Your task to perform on an android device: choose inbox layout in the gmail app Image 0: 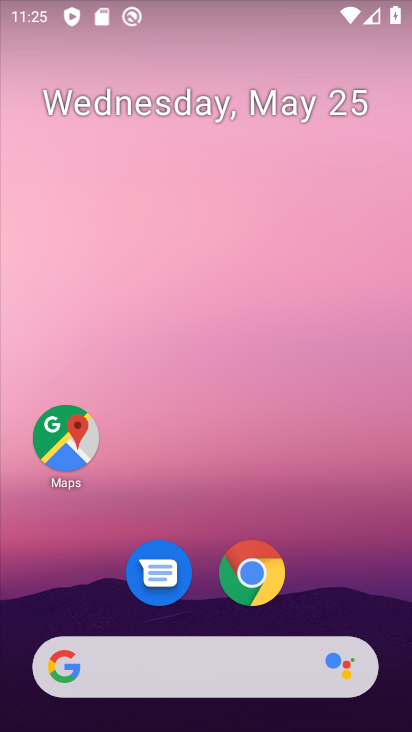
Step 0: drag from (247, 676) to (222, 163)
Your task to perform on an android device: choose inbox layout in the gmail app Image 1: 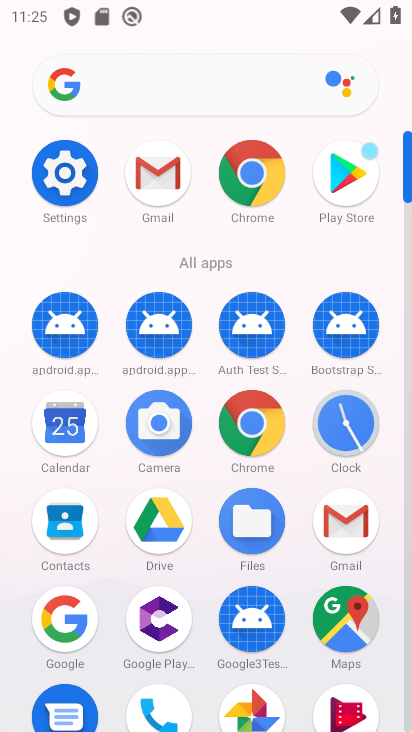
Step 1: click (175, 184)
Your task to perform on an android device: choose inbox layout in the gmail app Image 2: 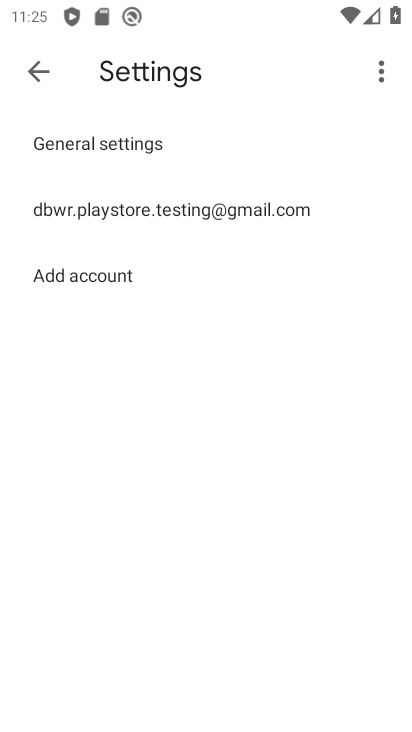
Step 2: click (40, 73)
Your task to perform on an android device: choose inbox layout in the gmail app Image 3: 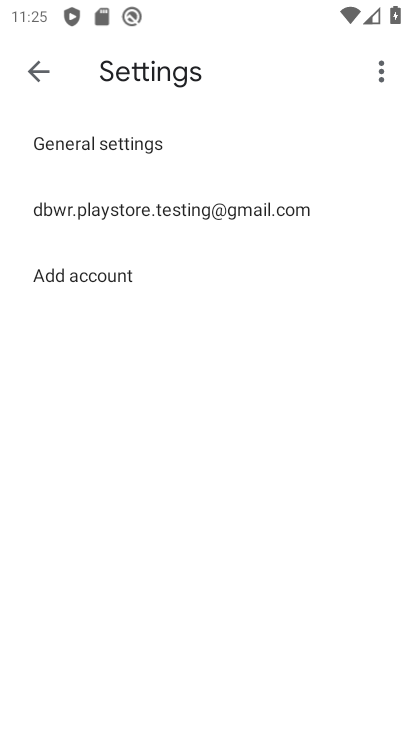
Step 3: click (40, 70)
Your task to perform on an android device: choose inbox layout in the gmail app Image 4: 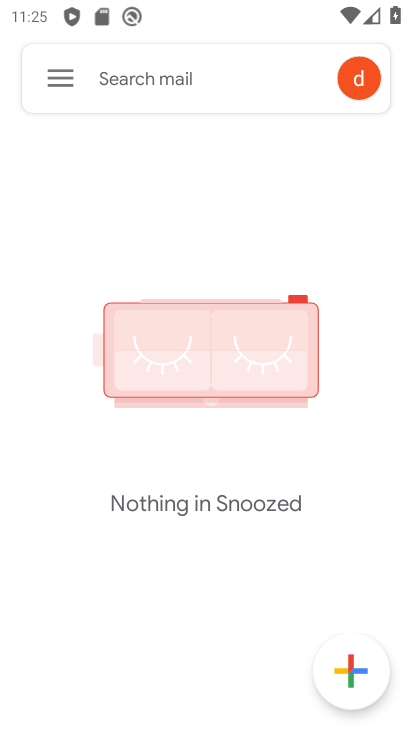
Step 4: click (40, 70)
Your task to perform on an android device: choose inbox layout in the gmail app Image 5: 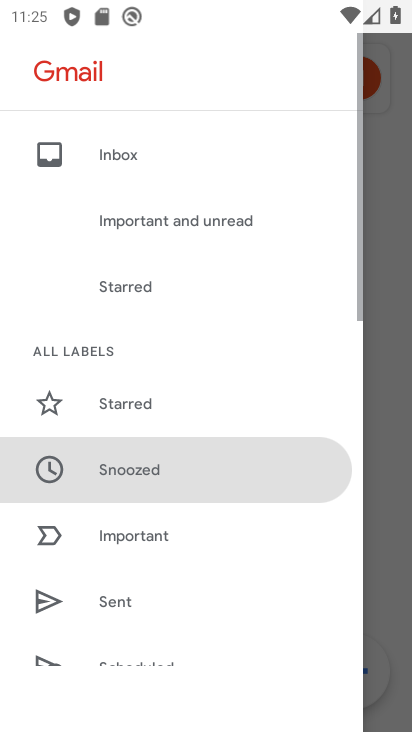
Step 5: drag from (81, 502) to (2, 502)
Your task to perform on an android device: choose inbox layout in the gmail app Image 6: 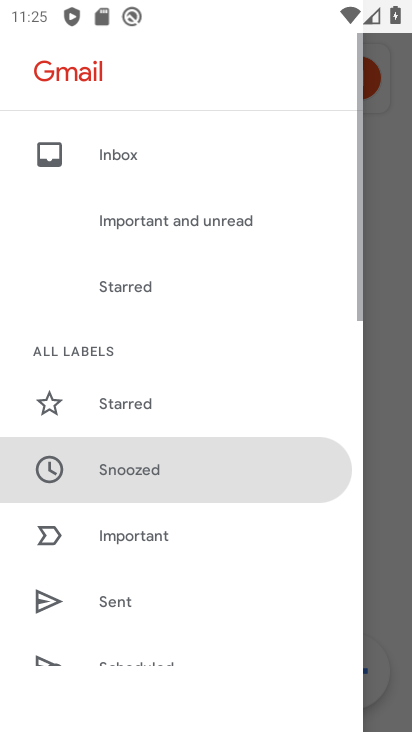
Step 6: drag from (92, 610) to (102, 34)
Your task to perform on an android device: choose inbox layout in the gmail app Image 7: 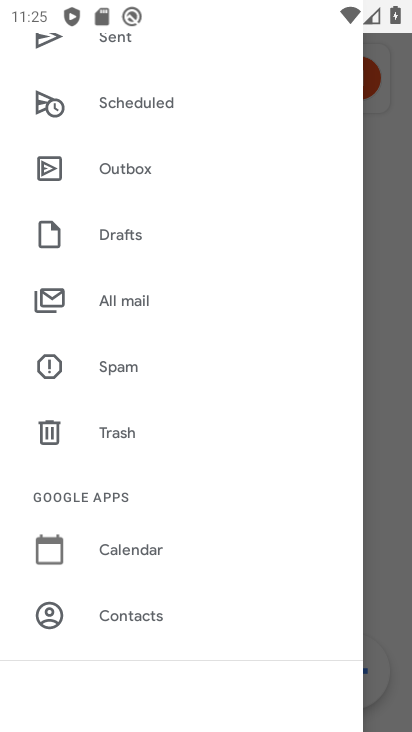
Step 7: drag from (123, 542) to (62, 22)
Your task to perform on an android device: choose inbox layout in the gmail app Image 8: 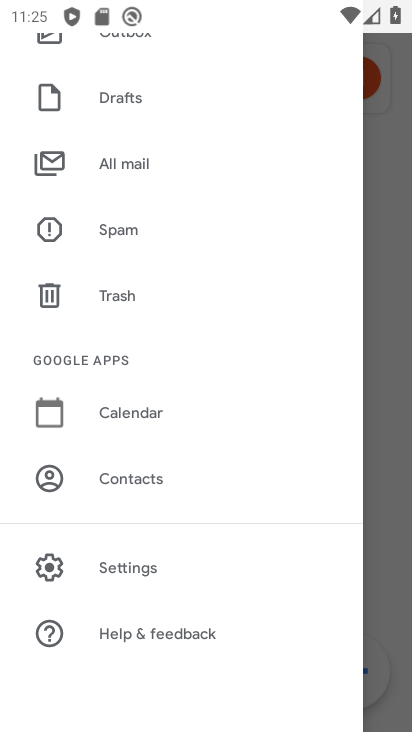
Step 8: click (107, 567)
Your task to perform on an android device: choose inbox layout in the gmail app Image 9: 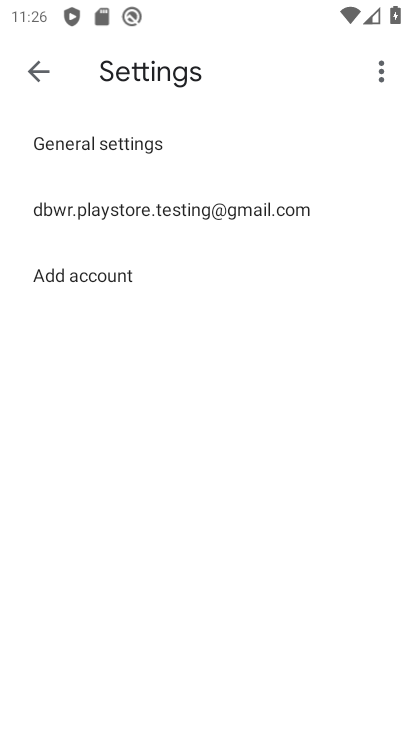
Step 9: click (120, 210)
Your task to perform on an android device: choose inbox layout in the gmail app Image 10: 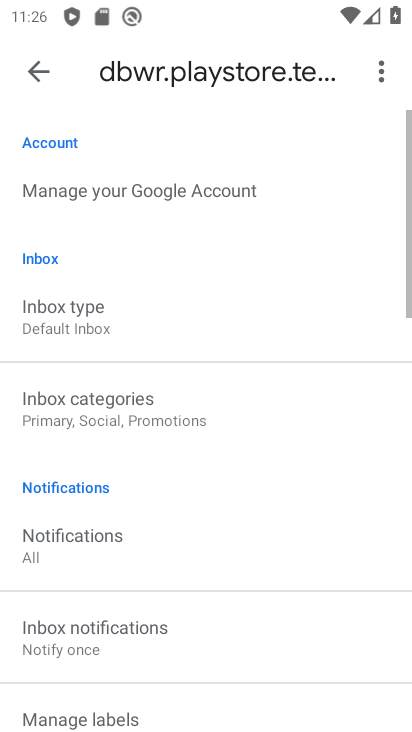
Step 10: click (65, 325)
Your task to perform on an android device: choose inbox layout in the gmail app Image 11: 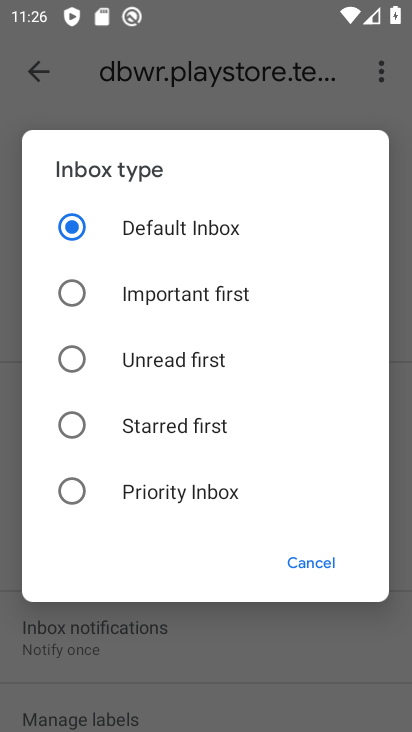
Step 11: click (126, 302)
Your task to perform on an android device: choose inbox layout in the gmail app Image 12: 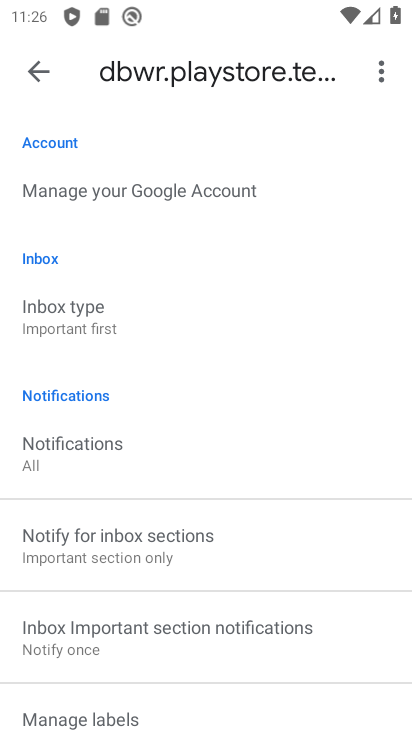
Step 12: task complete